Your task to perform on an android device: open chrome privacy settings Image 0: 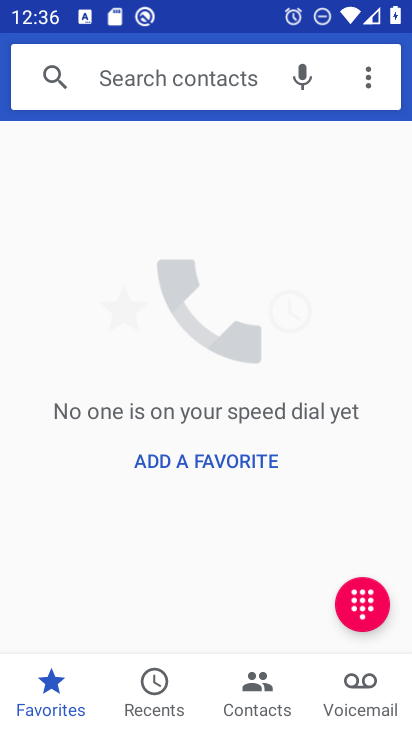
Step 0: press home button
Your task to perform on an android device: open chrome privacy settings Image 1: 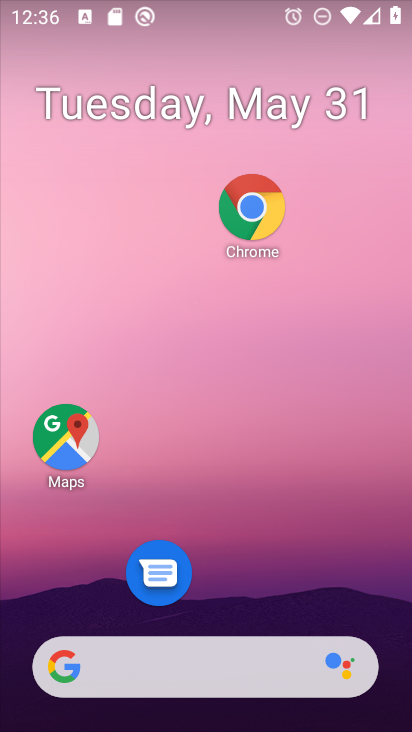
Step 1: drag from (234, 664) to (363, 29)
Your task to perform on an android device: open chrome privacy settings Image 2: 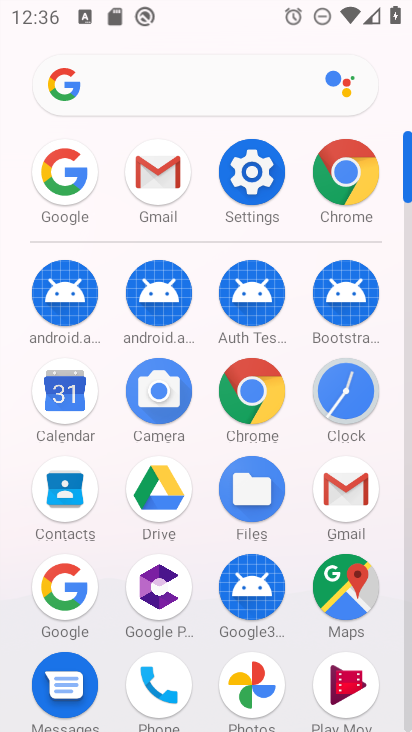
Step 2: click (241, 181)
Your task to perform on an android device: open chrome privacy settings Image 3: 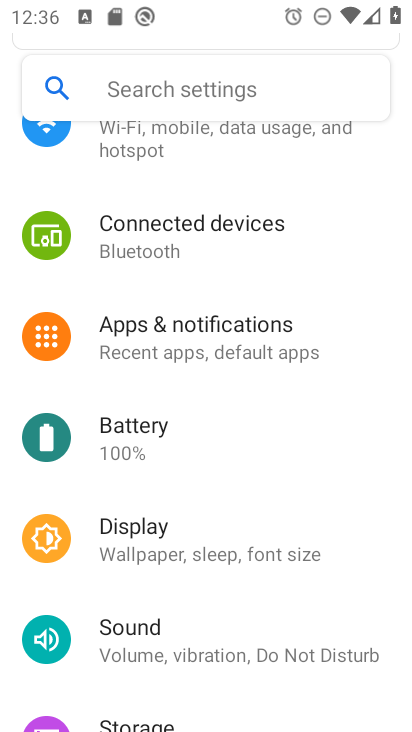
Step 3: drag from (177, 546) to (202, 292)
Your task to perform on an android device: open chrome privacy settings Image 4: 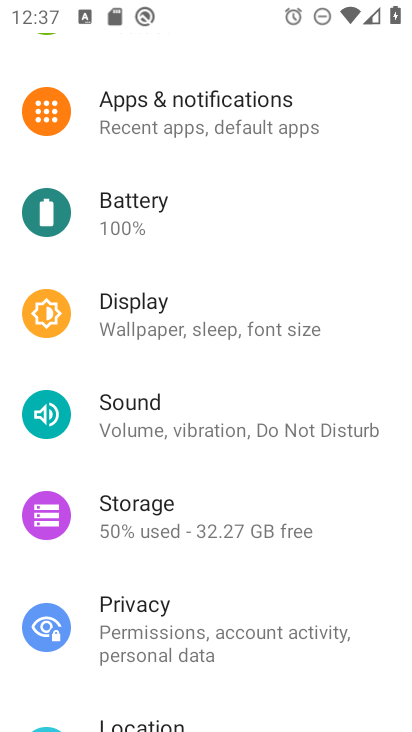
Step 4: drag from (222, 529) to (262, 270)
Your task to perform on an android device: open chrome privacy settings Image 5: 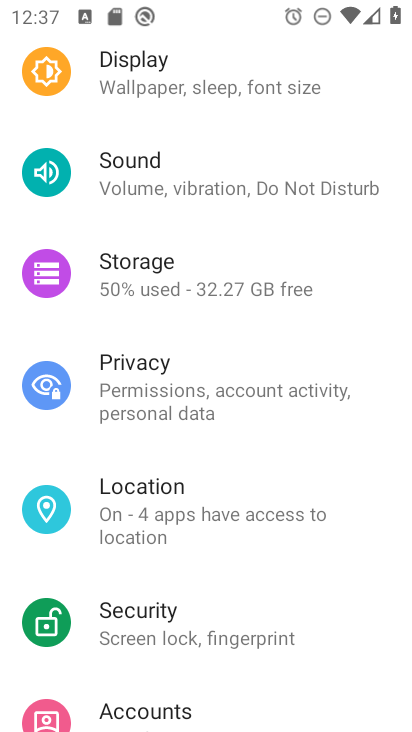
Step 5: click (195, 389)
Your task to perform on an android device: open chrome privacy settings Image 6: 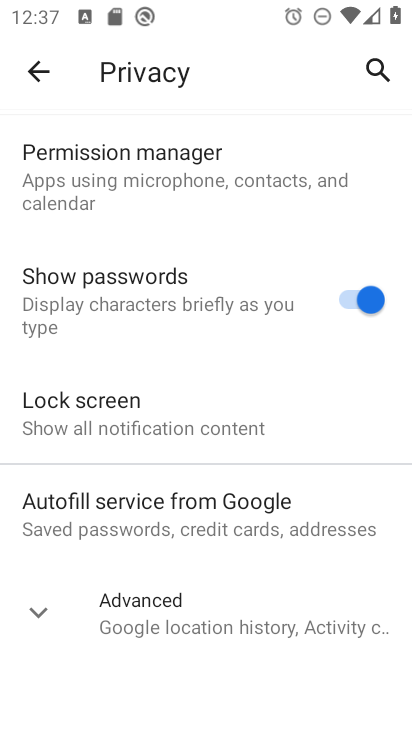
Step 6: task complete